Your task to perform on an android device: choose inbox layout in the gmail app Image 0: 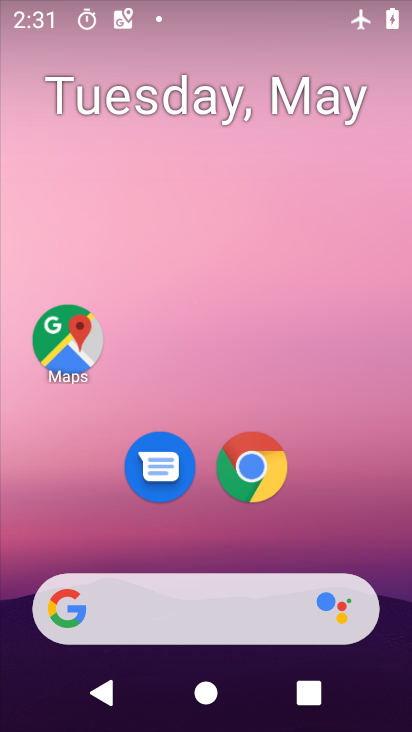
Step 0: drag from (356, 469) to (394, 172)
Your task to perform on an android device: choose inbox layout in the gmail app Image 1: 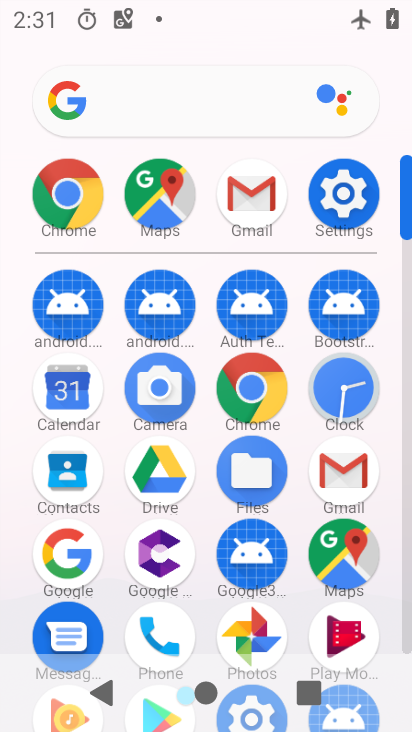
Step 1: click (353, 468)
Your task to perform on an android device: choose inbox layout in the gmail app Image 2: 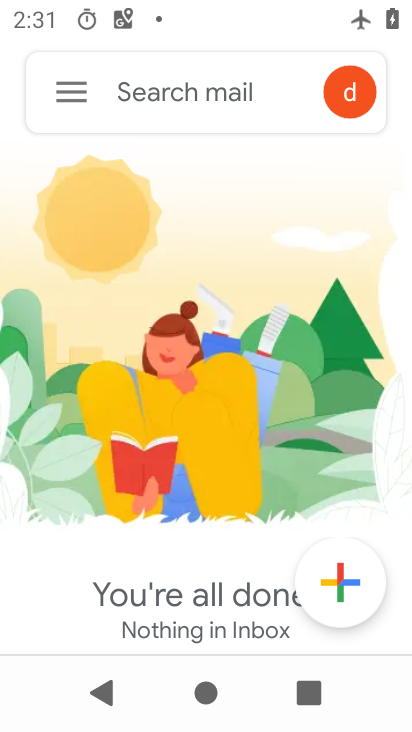
Step 2: click (72, 99)
Your task to perform on an android device: choose inbox layout in the gmail app Image 3: 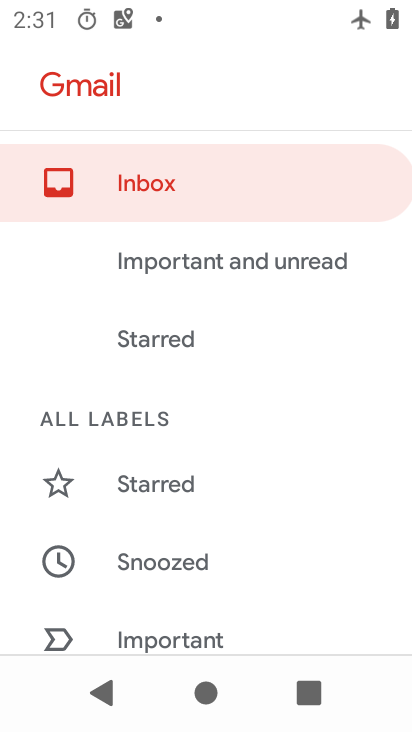
Step 3: drag from (264, 533) to (301, 348)
Your task to perform on an android device: choose inbox layout in the gmail app Image 4: 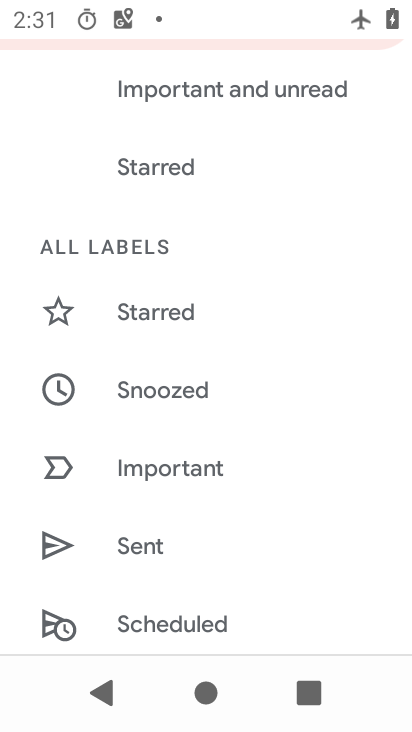
Step 4: drag from (292, 503) to (289, 289)
Your task to perform on an android device: choose inbox layout in the gmail app Image 5: 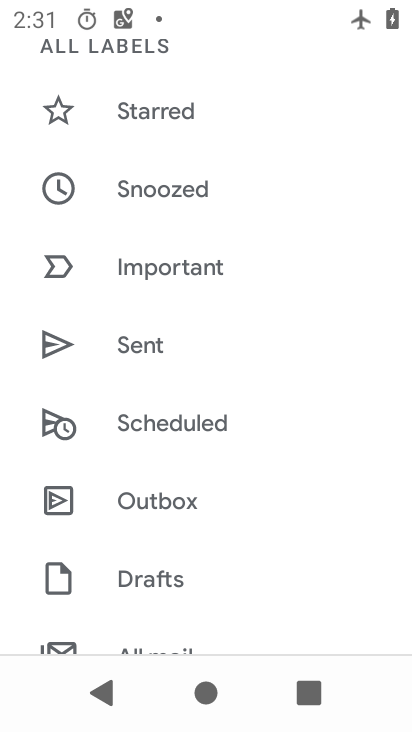
Step 5: drag from (293, 498) to (313, 302)
Your task to perform on an android device: choose inbox layout in the gmail app Image 6: 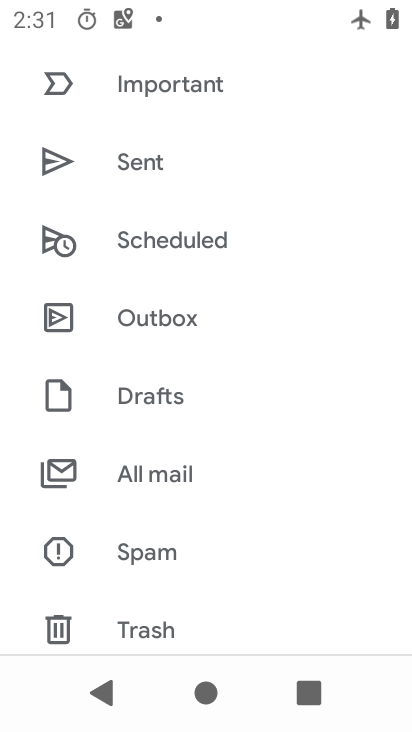
Step 6: drag from (300, 508) to (290, 349)
Your task to perform on an android device: choose inbox layout in the gmail app Image 7: 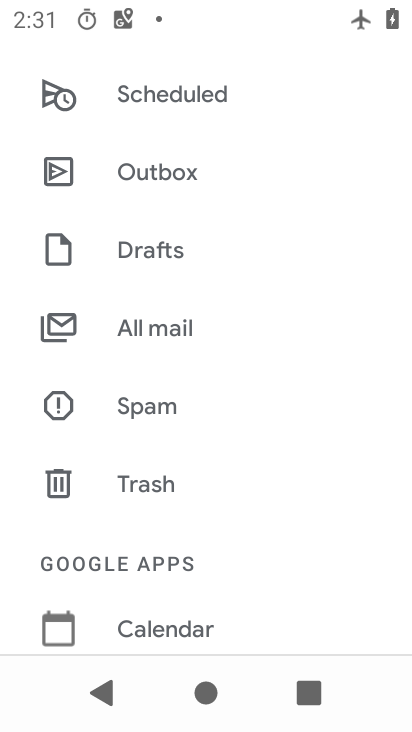
Step 7: drag from (282, 539) to (300, 351)
Your task to perform on an android device: choose inbox layout in the gmail app Image 8: 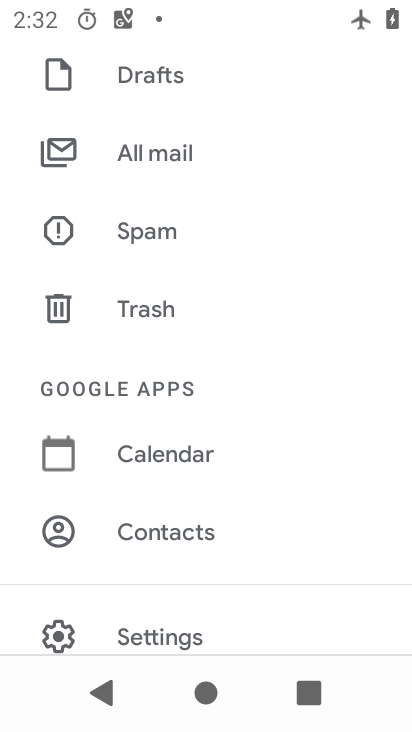
Step 8: drag from (303, 544) to (305, 372)
Your task to perform on an android device: choose inbox layout in the gmail app Image 9: 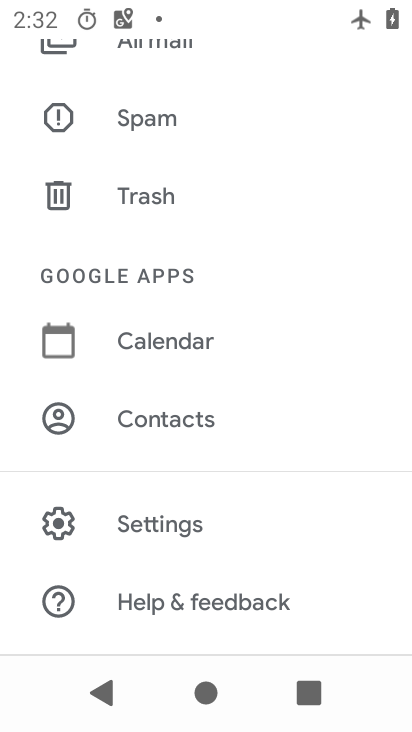
Step 9: click (183, 532)
Your task to perform on an android device: choose inbox layout in the gmail app Image 10: 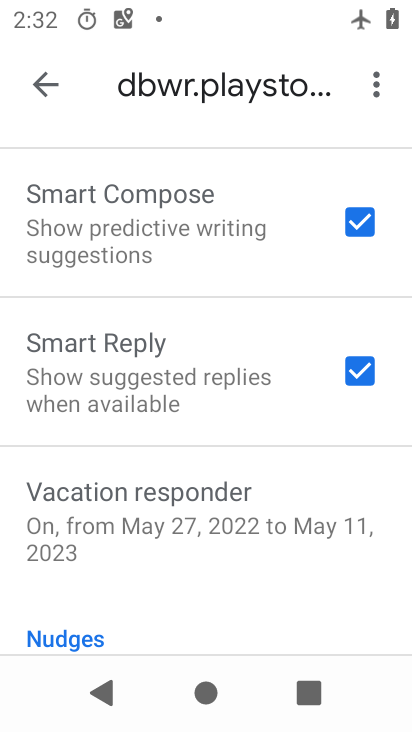
Step 10: drag from (274, 252) to (289, 457)
Your task to perform on an android device: choose inbox layout in the gmail app Image 11: 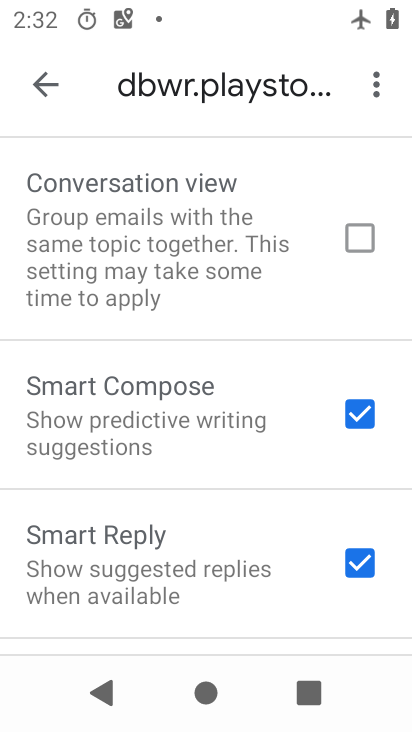
Step 11: drag from (299, 281) to (291, 397)
Your task to perform on an android device: choose inbox layout in the gmail app Image 12: 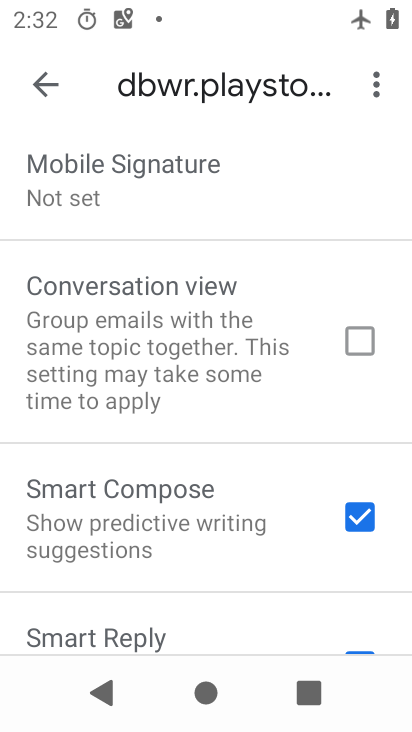
Step 12: drag from (275, 245) to (285, 350)
Your task to perform on an android device: choose inbox layout in the gmail app Image 13: 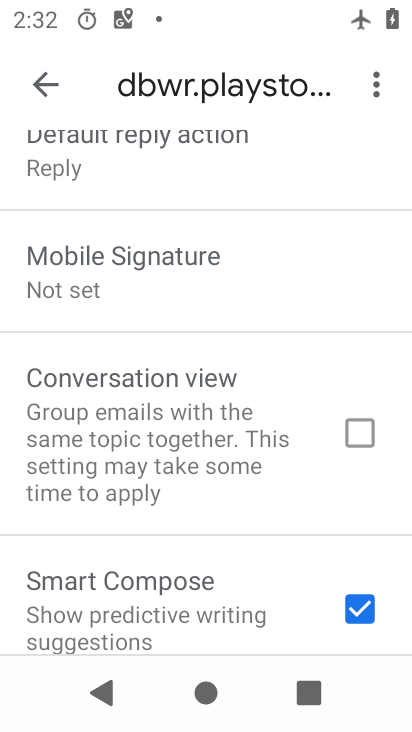
Step 13: drag from (295, 230) to (307, 350)
Your task to perform on an android device: choose inbox layout in the gmail app Image 14: 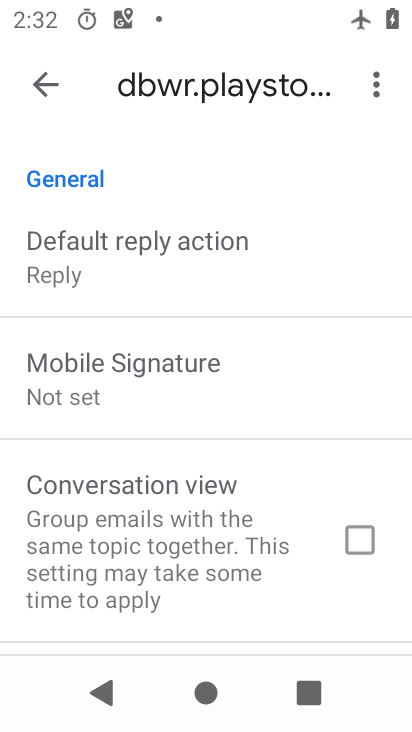
Step 14: drag from (307, 214) to (297, 330)
Your task to perform on an android device: choose inbox layout in the gmail app Image 15: 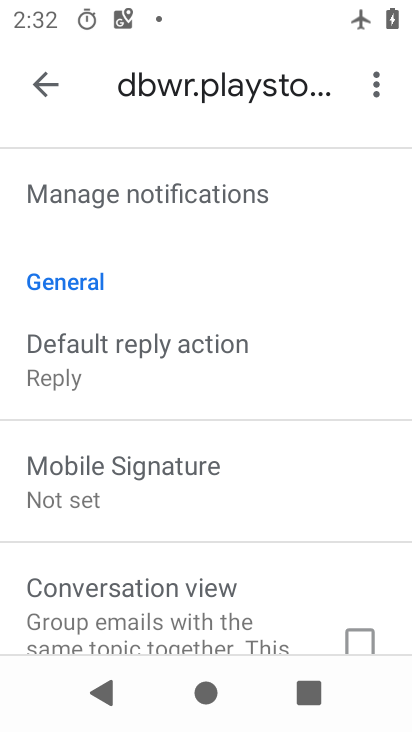
Step 15: drag from (293, 195) to (288, 334)
Your task to perform on an android device: choose inbox layout in the gmail app Image 16: 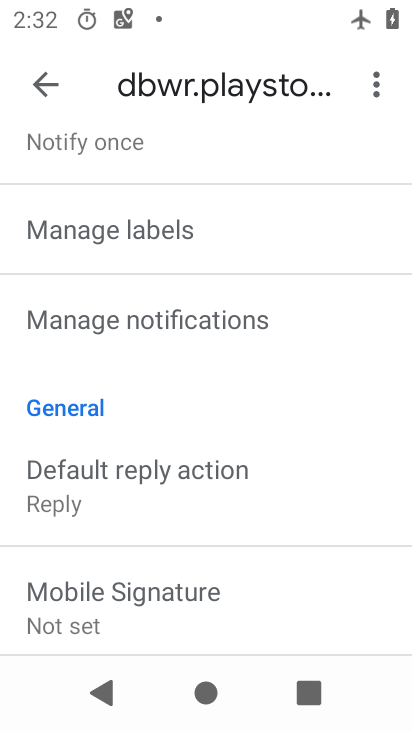
Step 16: drag from (288, 203) to (289, 328)
Your task to perform on an android device: choose inbox layout in the gmail app Image 17: 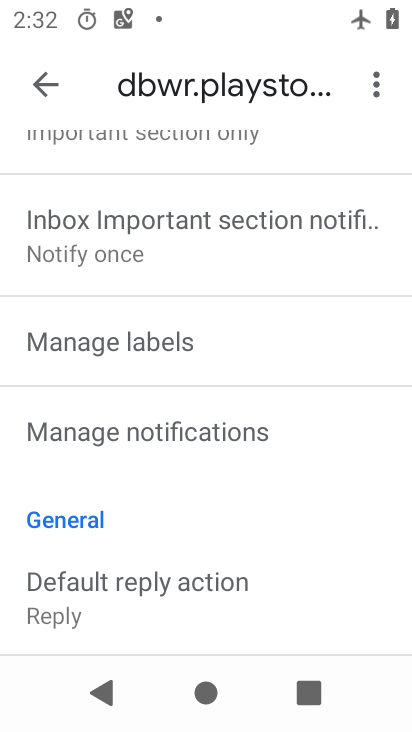
Step 17: drag from (273, 150) to (286, 277)
Your task to perform on an android device: choose inbox layout in the gmail app Image 18: 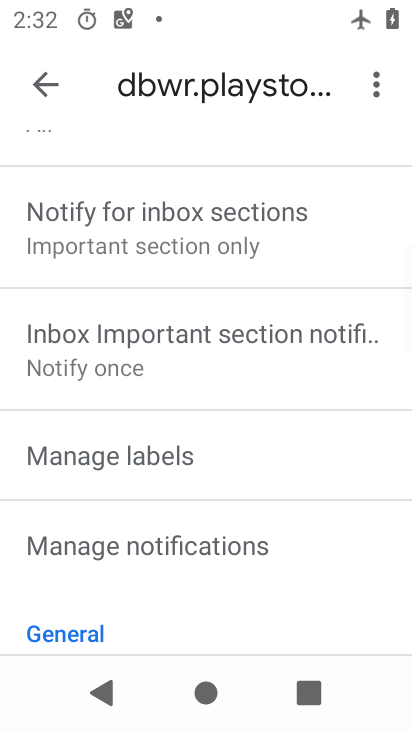
Step 18: drag from (292, 168) to (291, 296)
Your task to perform on an android device: choose inbox layout in the gmail app Image 19: 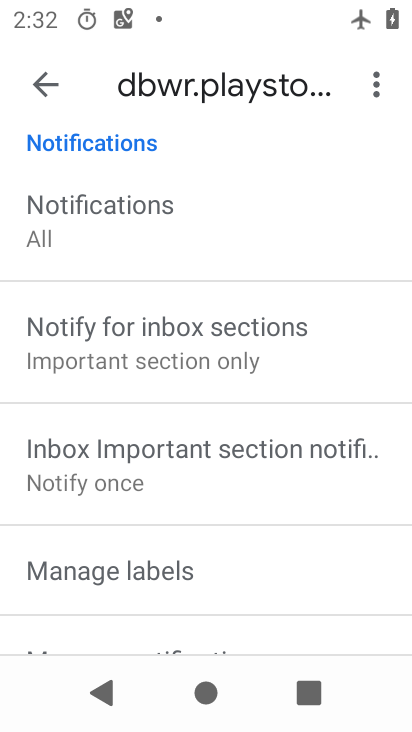
Step 19: drag from (277, 178) to (274, 288)
Your task to perform on an android device: choose inbox layout in the gmail app Image 20: 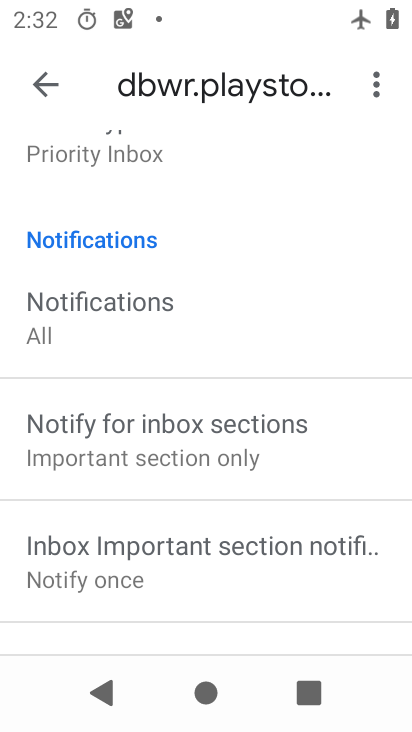
Step 20: drag from (285, 156) to (280, 267)
Your task to perform on an android device: choose inbox layout in the gmail app Image 21: 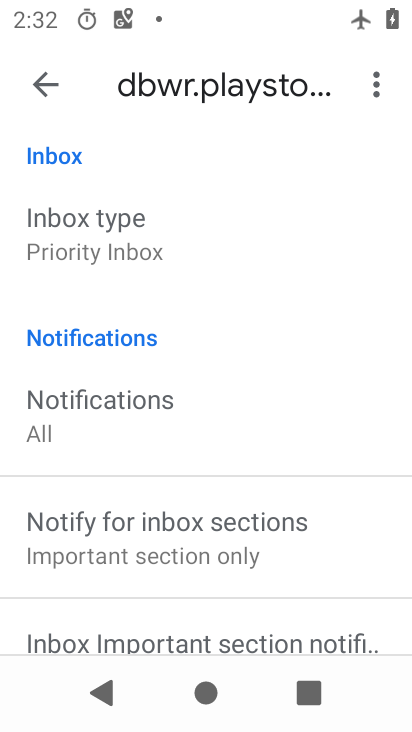
Step 21: click (108, 239)
Your task to perform on an android device: choose inbox layout in the gmail app Image 22: 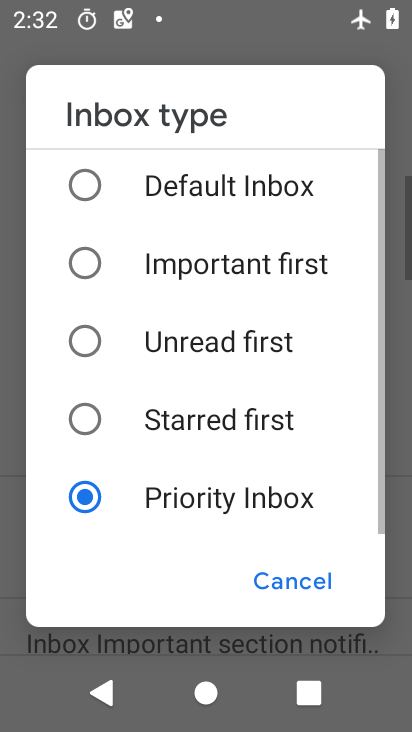
Step 22: click (204, 275)
Your task to perform on an android device: choose inbox layout in the gmail app Image 23: 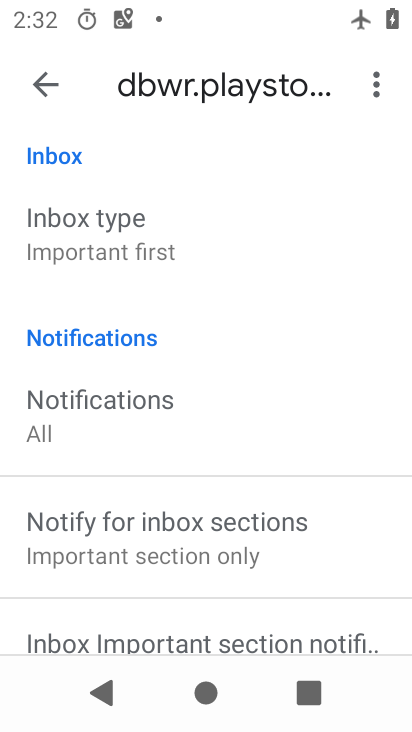
Step 23: task complete